Your task to perform on an android device: Open accessibility settings Image 0: 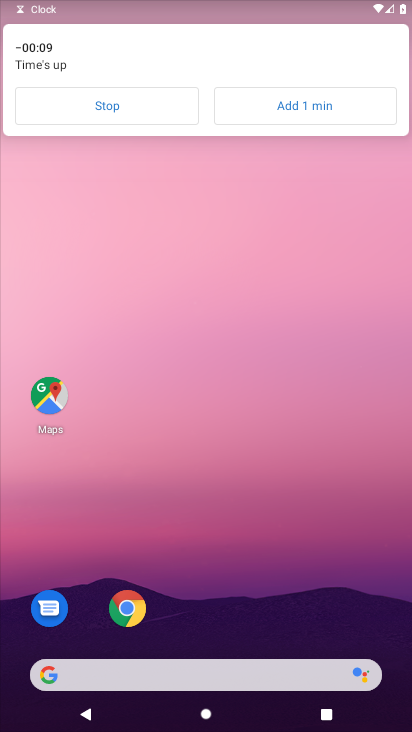
Step 0: click (126, 109)
Your task to perform on an android device: Open accessibility settings Image 1: 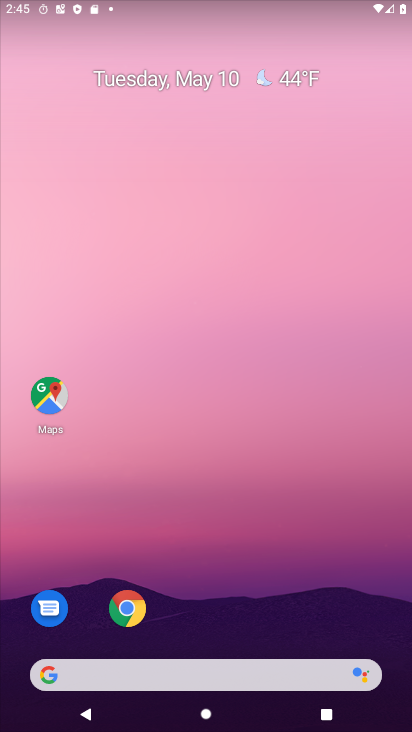
Step 1: drag from (340, 610) to (340, 2)
Your task to perform on an android device: Open accessibility settings Image 2: 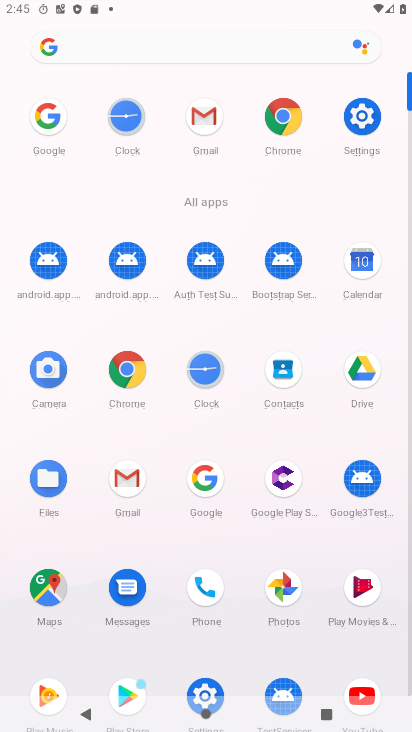
Step 2: click (357, 117)
Your task to perform on an android device: Open accessibility settings Image 3: 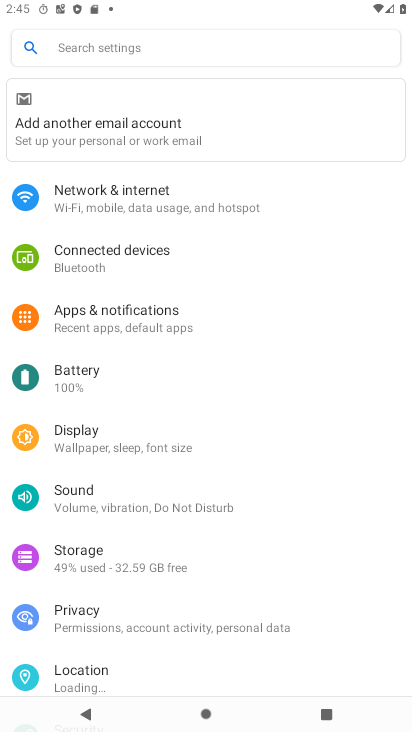
Step 3: drag from (274, 607) to (289, 291)
Your task to perform on an android device: Open accessibility settings Image 4: 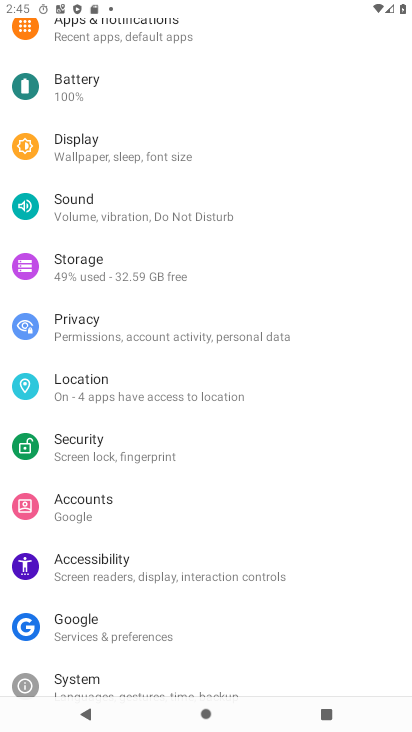
Step 4: click (73, 568)
Your task to perform on an android device: Open accessibility settings Image 5: 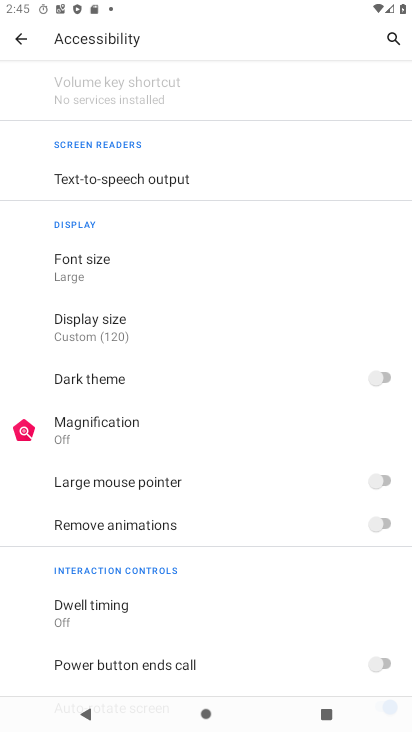
Step 5: task complete